Your task to perform on an android device: Open calendar and show me the second week of next month Image 0: 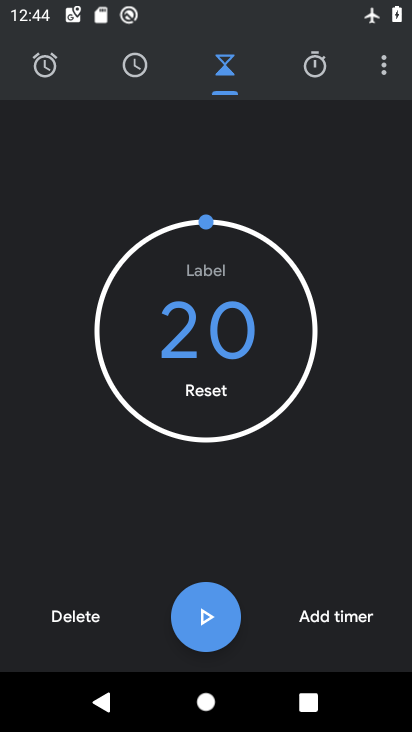
Step 0: press home button
Your task to perform on an android device: Open calendar and show me the second week of next month Image 1: 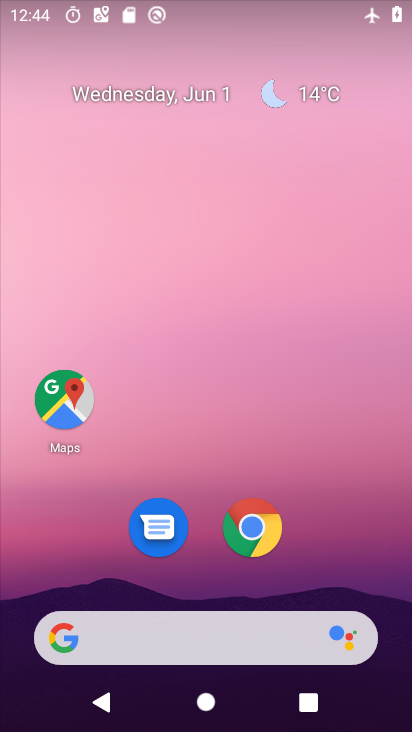
Step 1: drag from (341, 594) to (326, 0)
Your task to perform on an android device: Open calendar and show me the second week of next month Image 2: 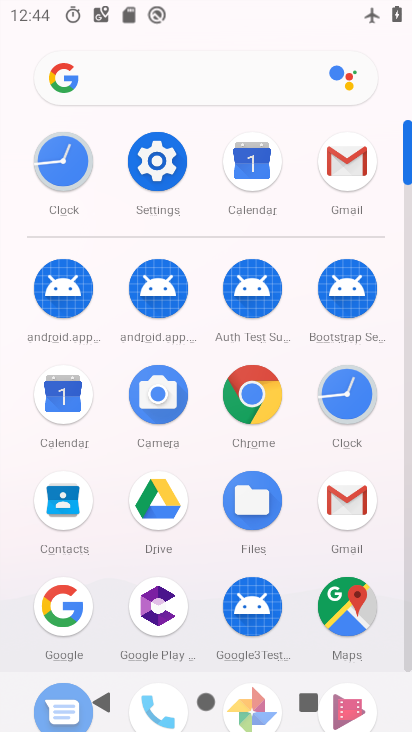
Step 2: click (255, 167)
Your task to perform on an android device: Open calendar and show me the second week of next month Image 3: 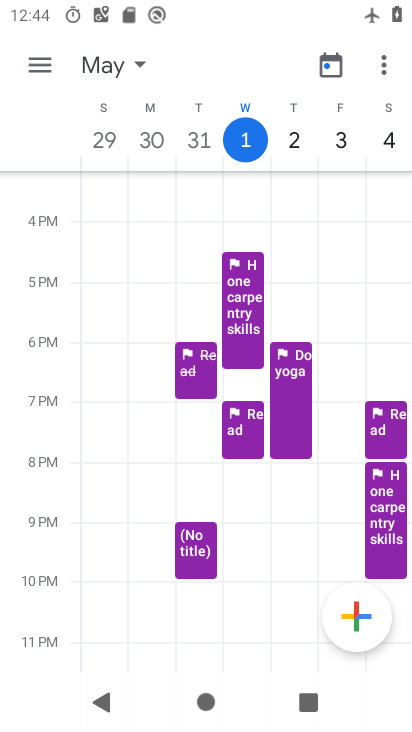
Step 3: click (134, 64)
Your task to perform on an android device: Open calendar and show me the second week of next month Image 4: 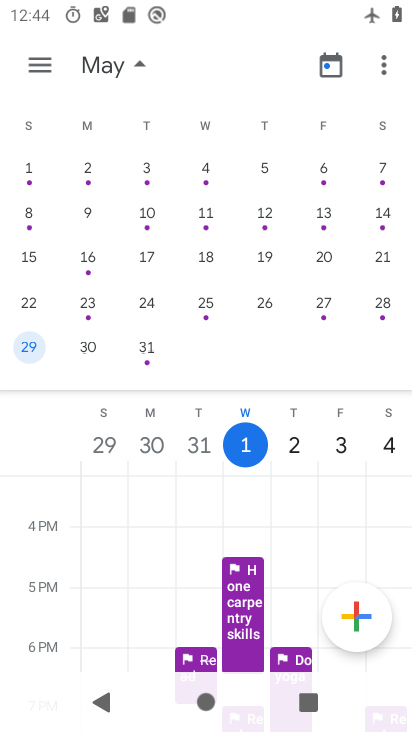
Step 4: drag from (335, 233) to (4, 215)
Your task to perform on an android device: Open calendar and show me the second week of next month Image 5: 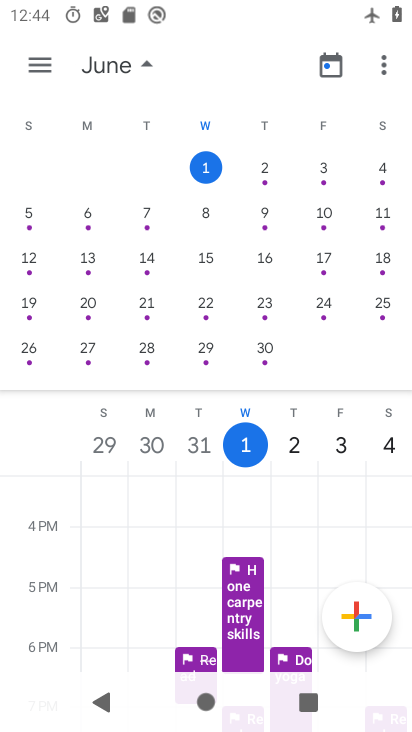
Step 5: drag from (350, 258) to (1, 41)
Your task to perform on an android device: Open calendar and show me the second week of next month Image 6: 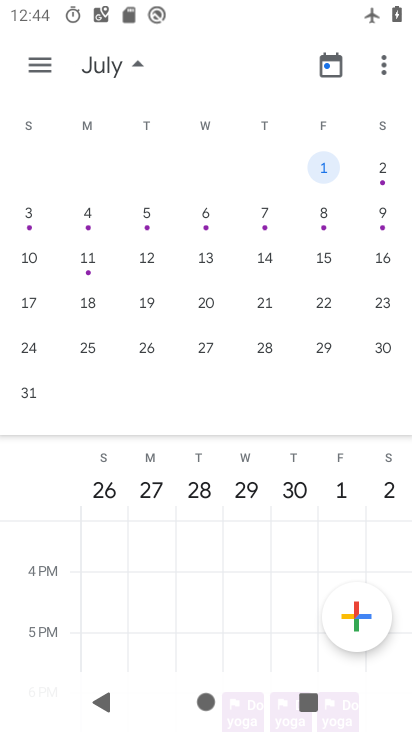
Step 6: click (40, 65)
Your task to perform on an android device: Open calendar and show me the second week of next month Image 7: 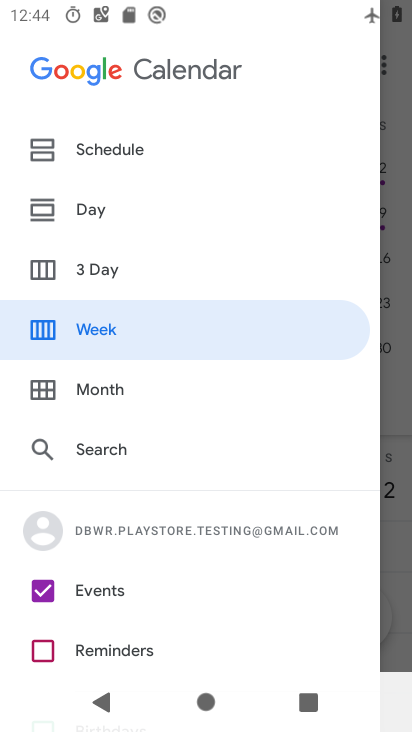
Step 7: click (92, 333)
Your task to perform on an android device: Open calendar and show me the second week of next month Image 8: 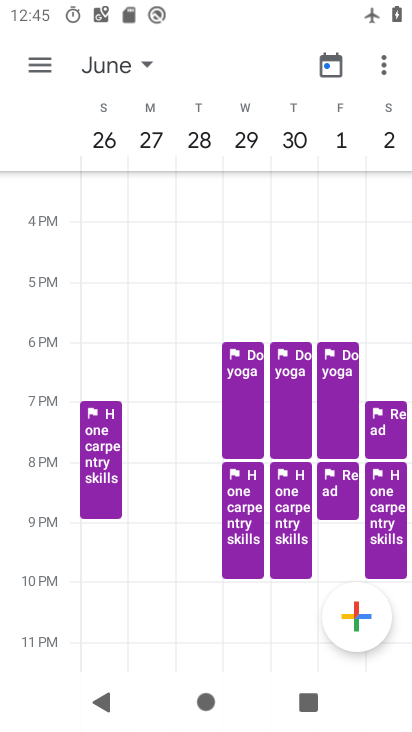
Step 8: task complete